Your task to perform on an android device: open app "Skype" Image 0: 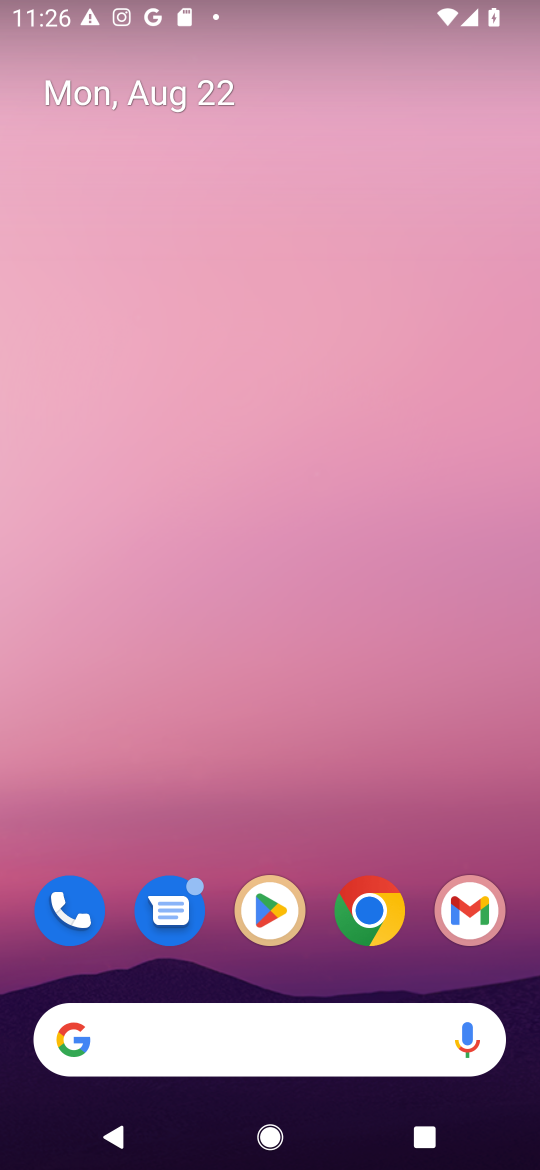
Step 0: click (255, 914)
Your task to perform on an android device: open app "Skype" Image 1: 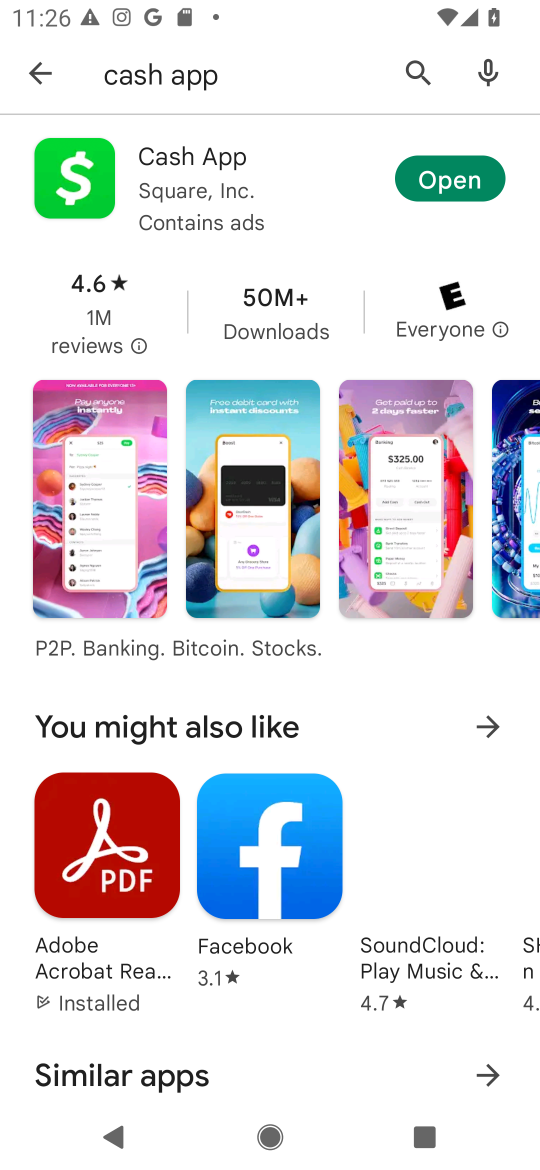
Step 1: click (428, 66)
Your task to perform on an android device: open app "Skype" Image 2: 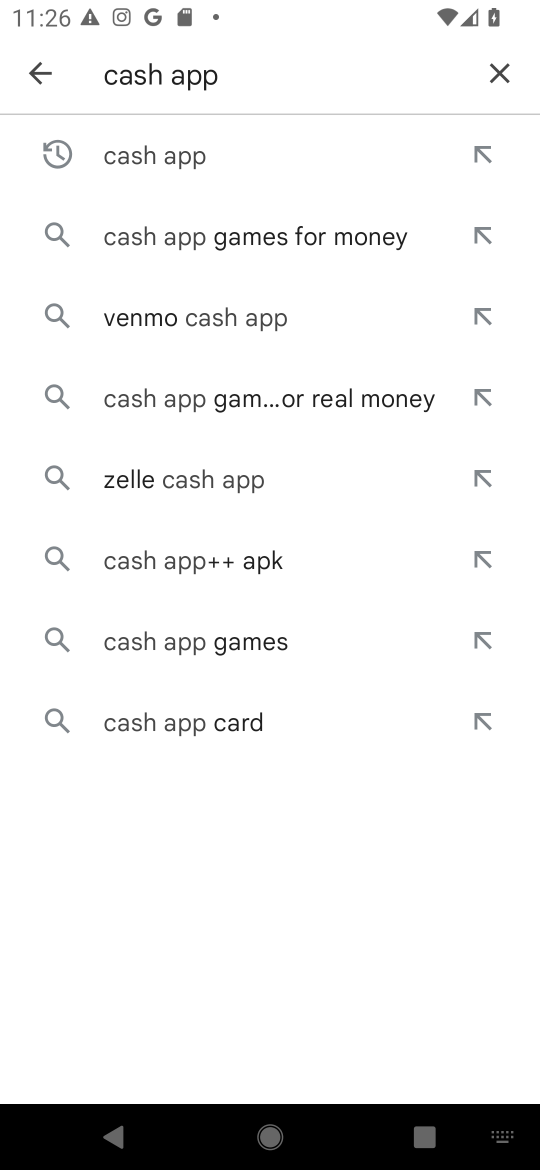
Step 2: click (491, 64)
Your task to perform on an android device: open app "Skype" Image 3: 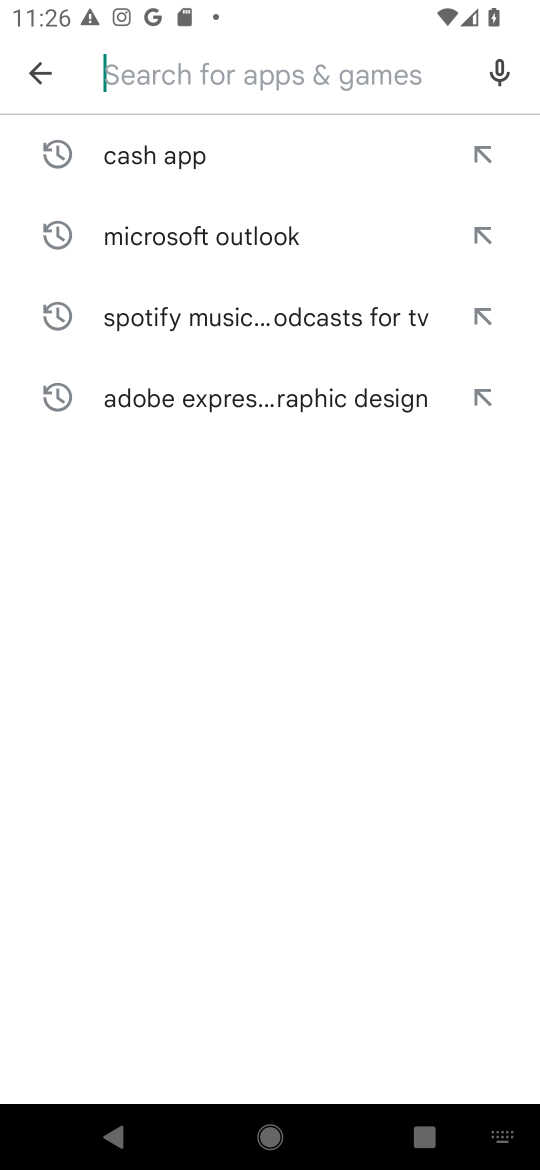
Step 3: click (329, 79)
Your task to perform on an android device: open app "Skype" Image 4: 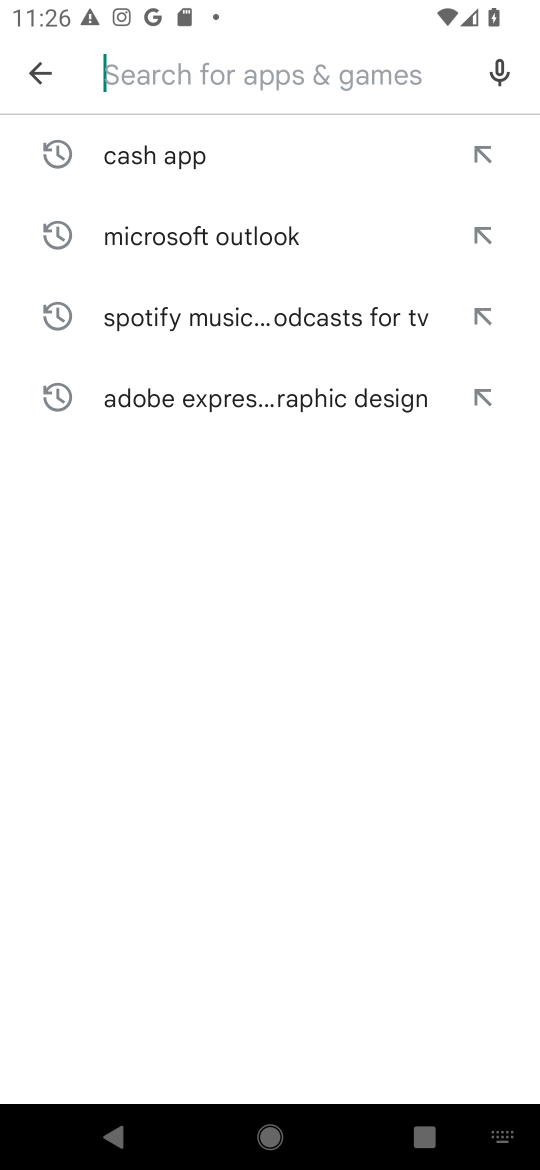
Step 4: type "Skype"
Your task to perform on an android device: open app "Skype" Image 5: 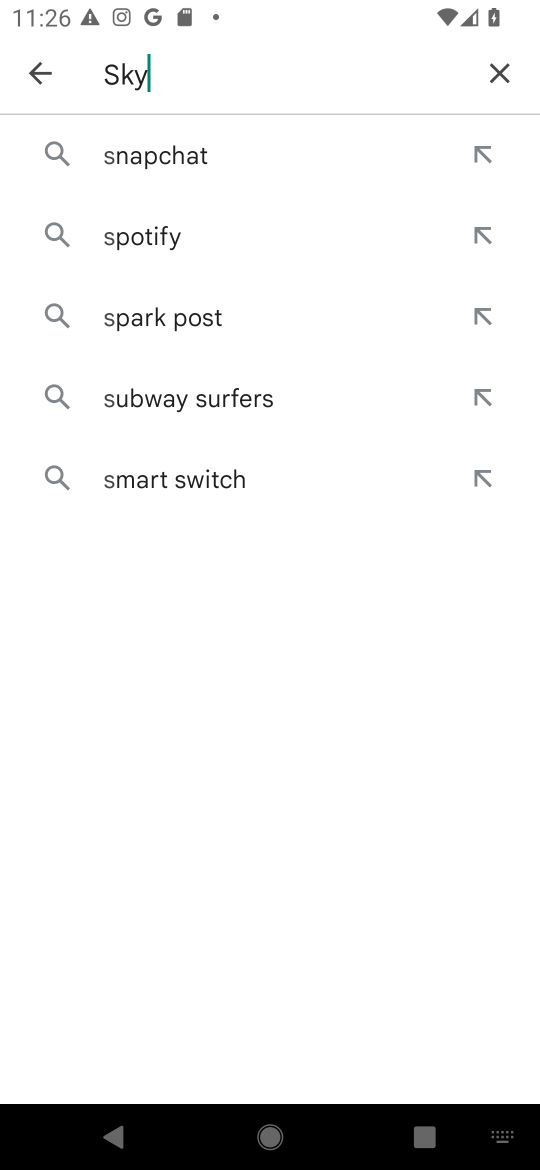
Step 5: type ""
Your task to perform on an android device: open app "Skype" Image 6: 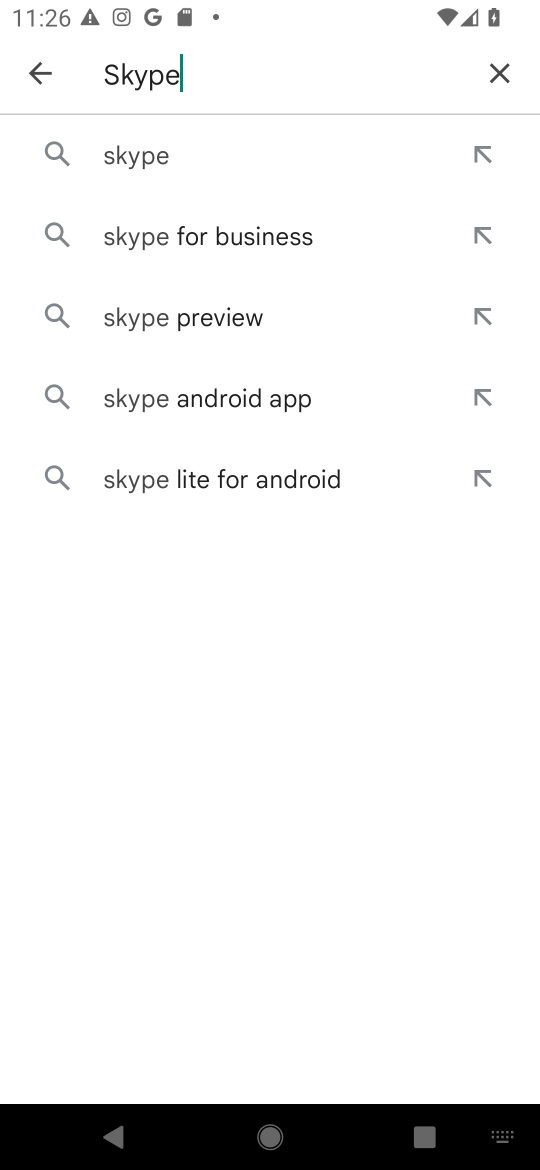
Step 6: click (190, 146)
Your task to perform on an android device: open app "Skype" Image 7: 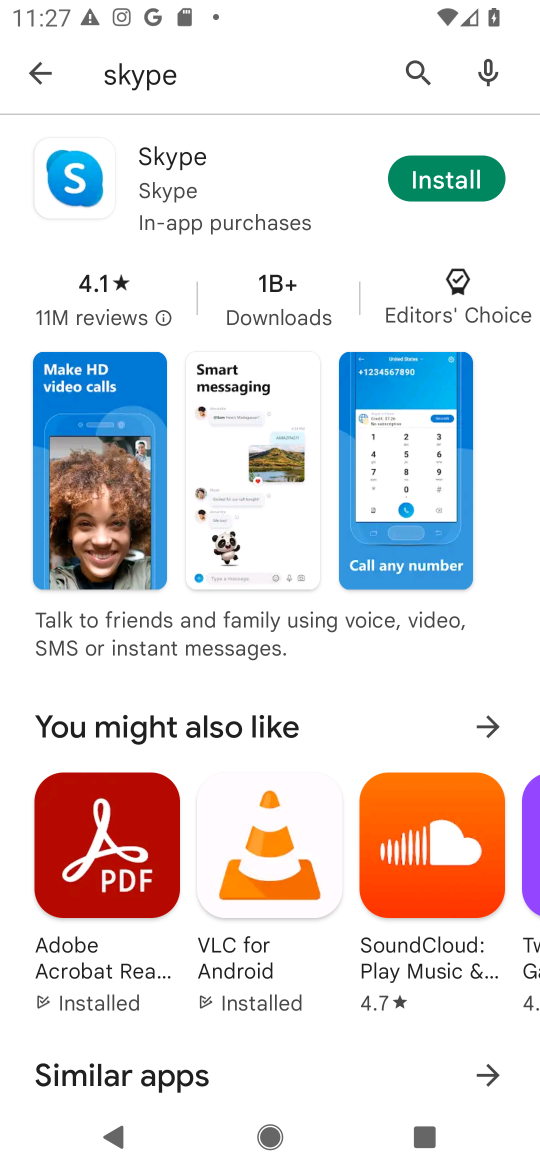
Step 7: task complete